Your task to perform on an android device: see creations saved in the google photos Image 0: 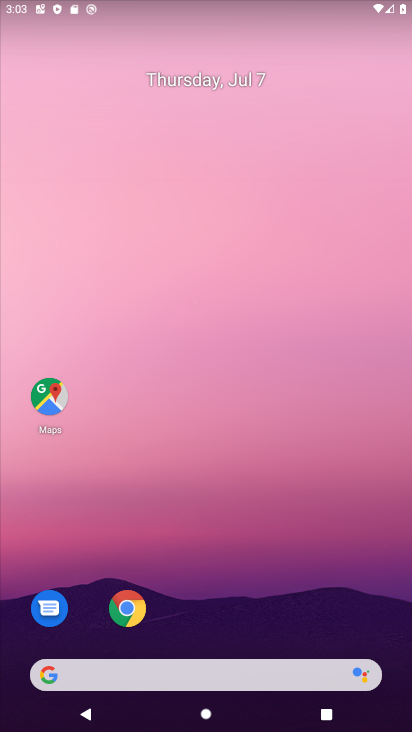
Step 0: drag from (241, 626) to (271, 136)
Your task to perform on an android device: see creations saved in the google photos Image 1: 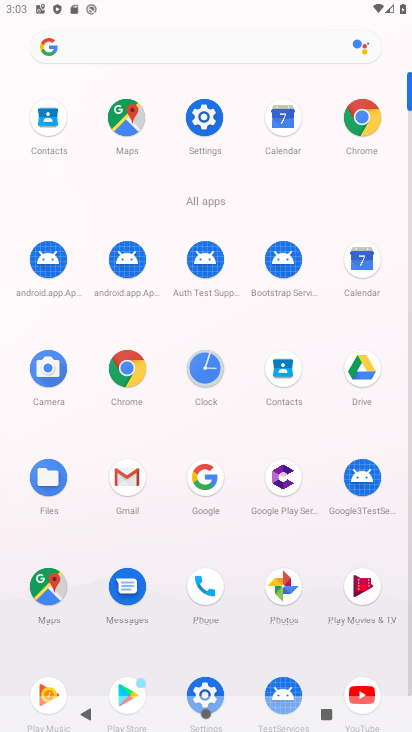
Step 1: click (284, 579)
Your task to perform on an android device: see creations saved in the google photos Image 2: 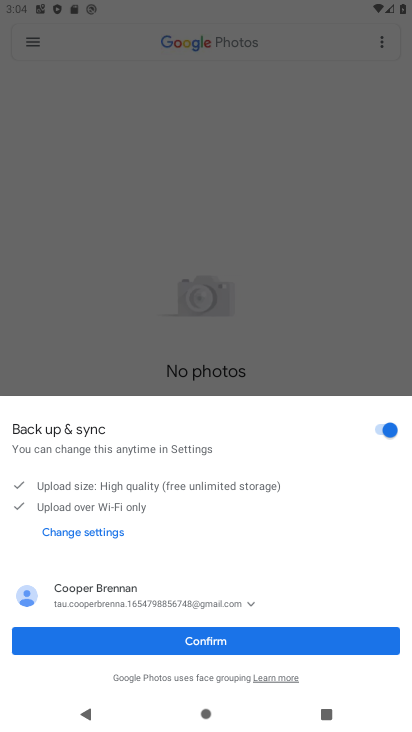
Step 2: click (206, 639)
Your task to perform on an android device: see creations saved in the google photos Image 3: 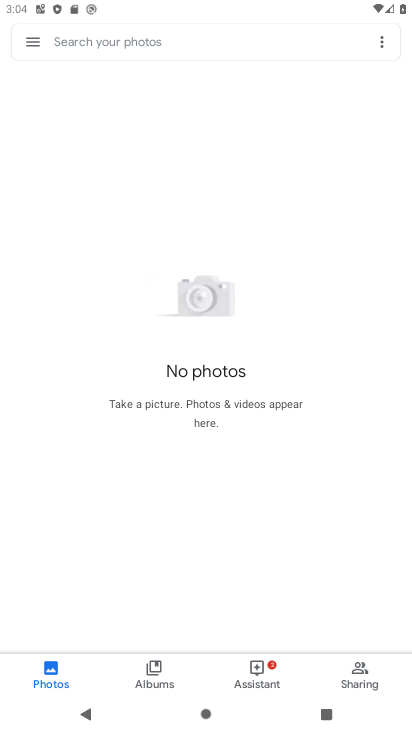
Step 3: click (82, 40)
Your task to perform on an android device: see creations saved in the google photos Image 4: 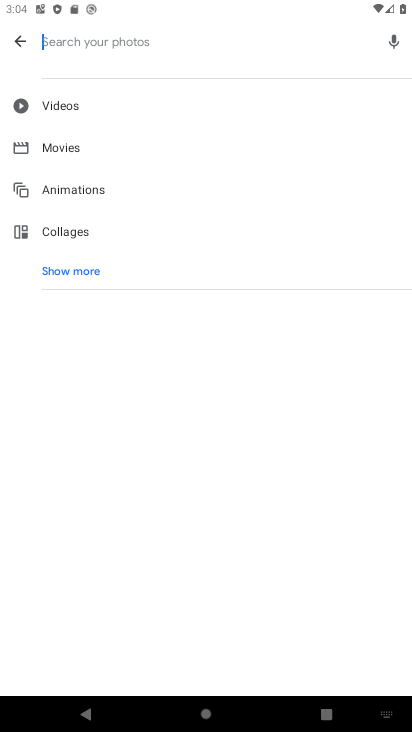
Step 4: click (63, 266)
Your task to perform on an android device: see creations saved in the google photos Image 5: 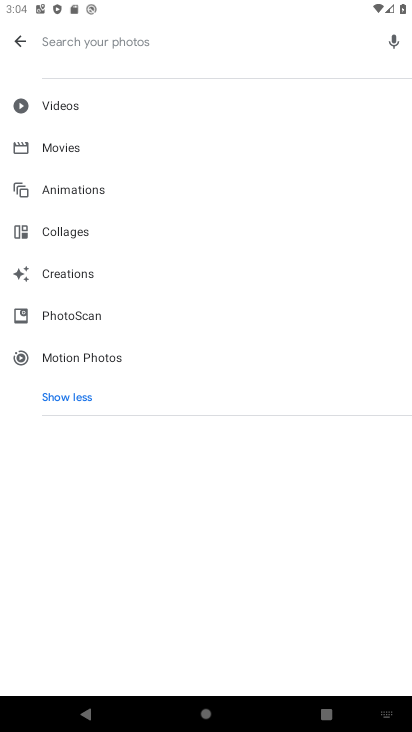
Step 5: click (64, 269)
Your task to perform on an android device: see creations saved in the google photos Image 6: 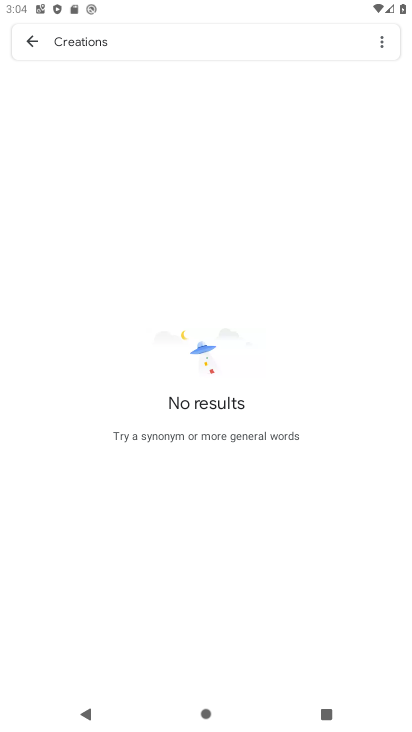
Step 6: task complete